Your task to perform on an android device: uninstall "Microsoft Excel" Image 0: 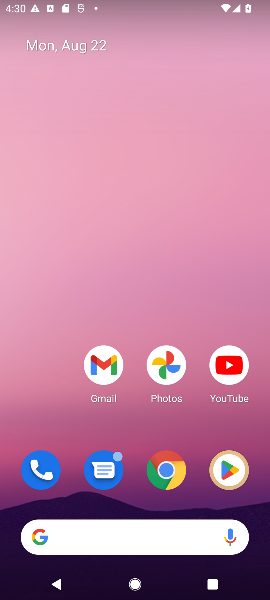
Step 0: drag from (147, 486) to (110, 25)
Your task to perform on an android device: uninstall "Microsoft Excel" Image 1: 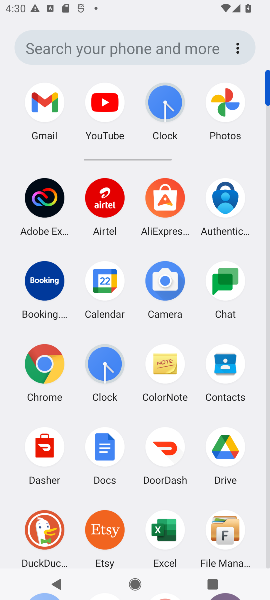
Step 1: press home button
Your task to perform on an android device: uninstall "Microsoft Excel" Image 2: 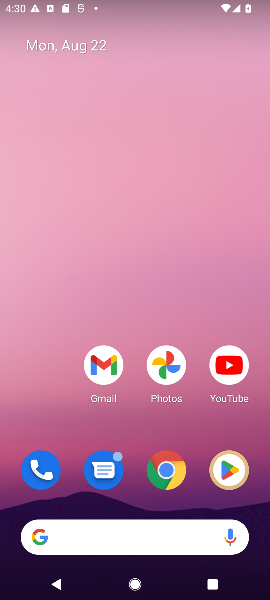
Step 2: click (224, 472)
Your task to perform on an android device: uninstall "Microsoft Excel" Image 3: 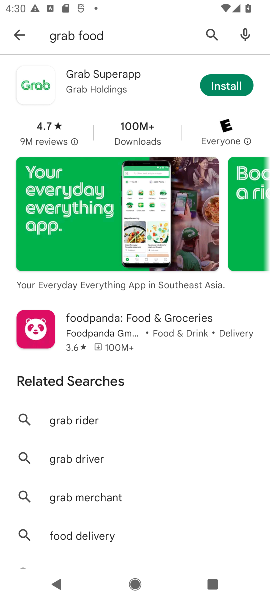
Step 3: click (11, 30)
Your task to perform on an android device: uninstall "Microsoft Excel" Image 4: 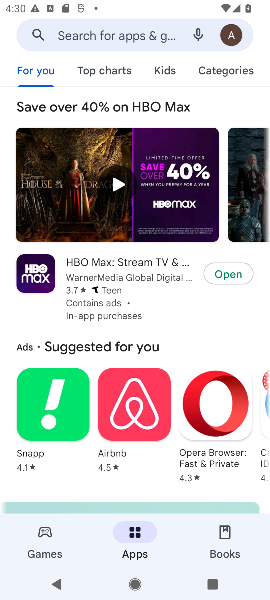
Step 4: click (137, 34)
Your task to perform on an android device: uninstall "Microsoft Excel" Image 5: 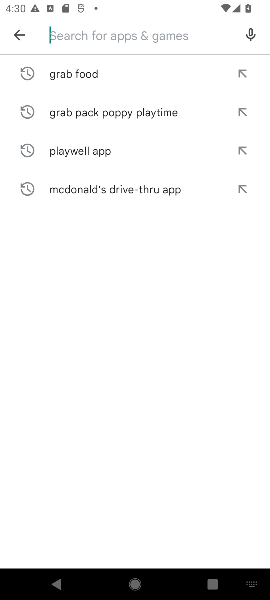
Step 5: type "Microsoft Excel "
Your task to perform on an android device: uninstall "Microsoft Excel" Image 6: 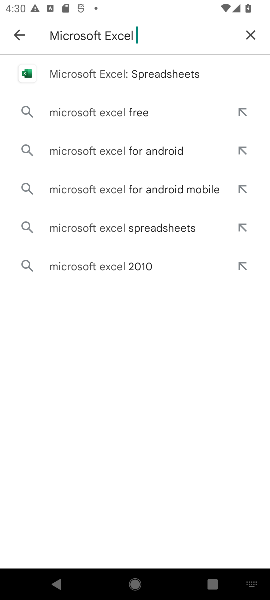
Step 6: click (129, 73)
Your task to perform on an android device: uninstall "Microsoft Excel" Image 7: 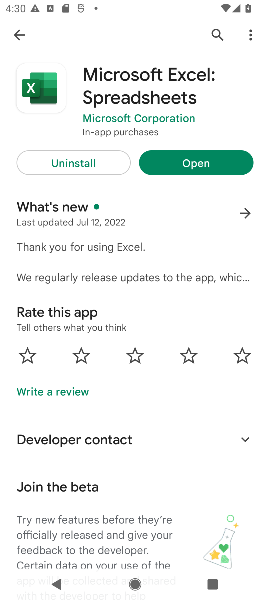
Step 7: click (75, 153)
Your task to perform on an android device: uninstall "Microsoft Excel" Image 8: 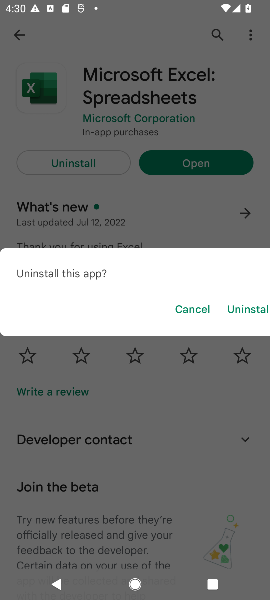
Step 8: click (250, 309)
Your task to perform on an android device: uninstall "Microsoft Excel" Image 9: 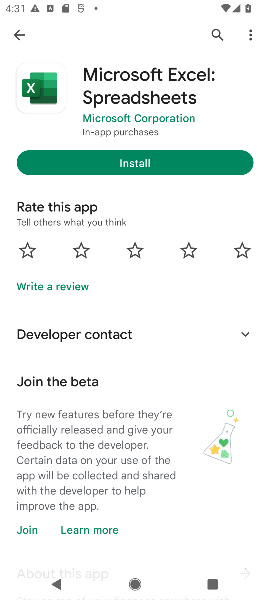
Step 9: task complete